Your task to perform on an android device: make emails show in primary in the gmail app Image 0: 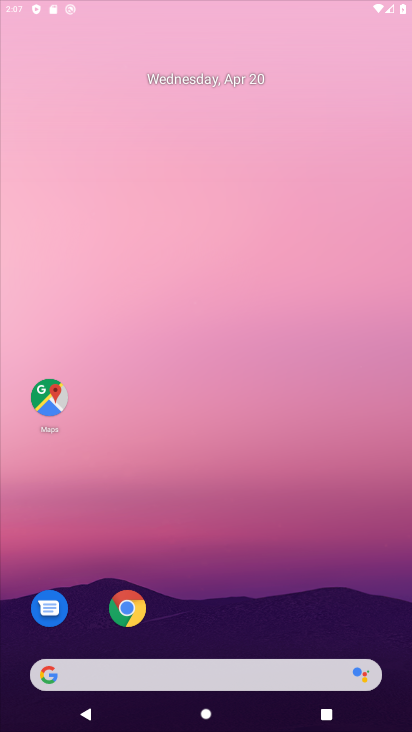
Step 0: drag from (300, 545) to (295, 230)
Your task to perform on an android device: make emails show in primary in the gmail app Image 1: 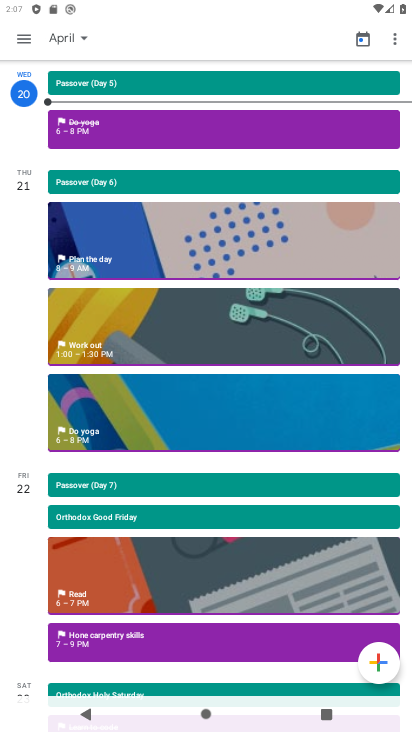
Step 1: press home button
Your task to perform on an android device: make emails show in primary in the gmail app Image 2: 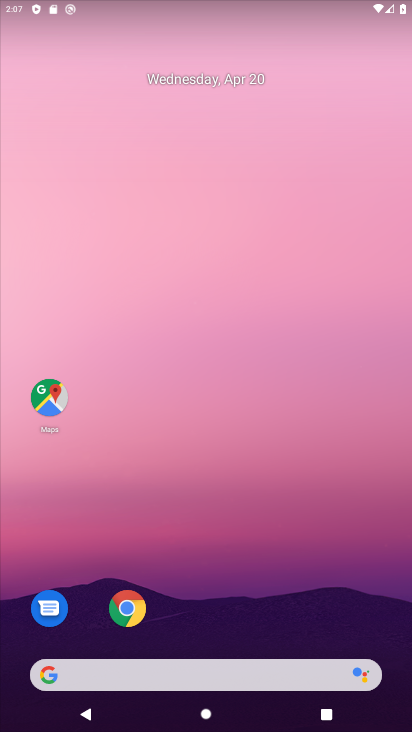
Step 2: drag from (341, 579) to (326, 152)
Your task to perform on an android device: make emails show in primary in the gmail app Image 3: 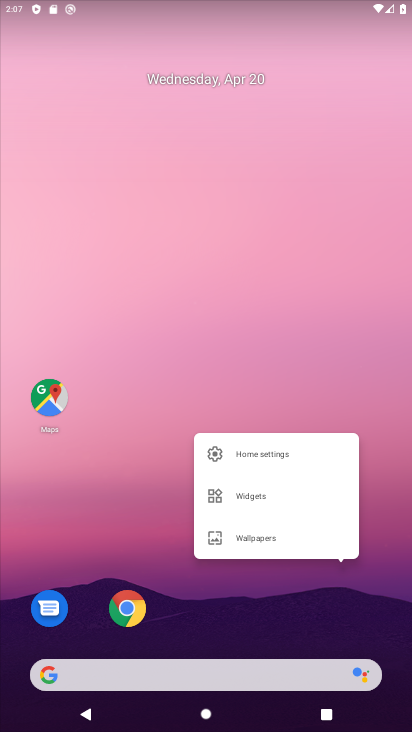
Step 3: drag from (371, 549) to (358, 183)
Your task to perform on an android device: make emails show in primary in the gmail app Image 4: 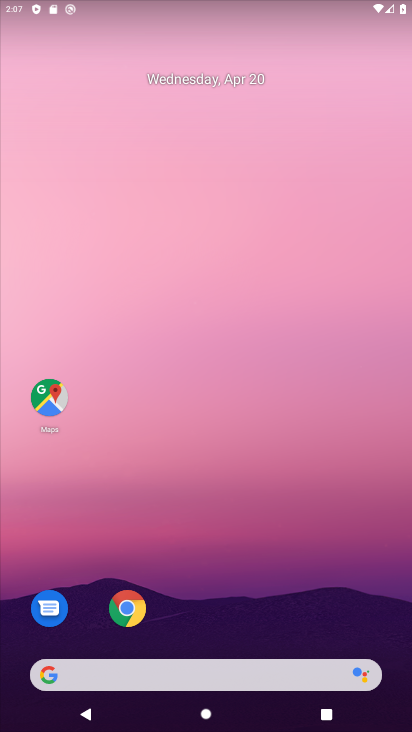
Step 4: drag from (330, 627) to (326, 111)
Your task to perform on an android device: make emails show in primary in the gmail app Image 5: 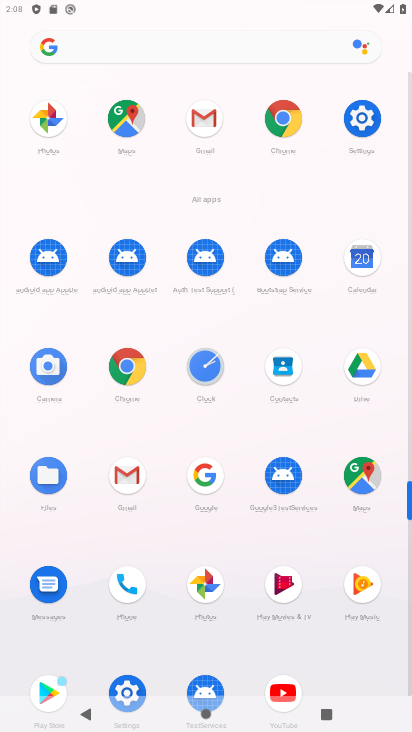
Step 5: click (127, 477)
Your task to perform on an android device: make emails show in primary in the gmail app Image 6: 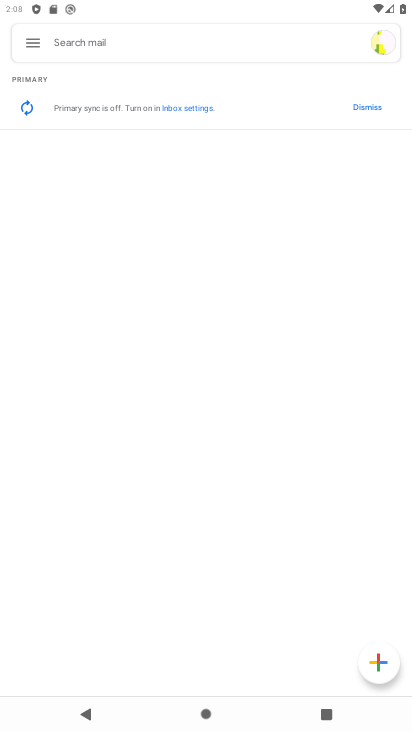
Step 6: click (31, 42)
Your task to perform on an android device: make emails show in primary in the gmail app Image 7: 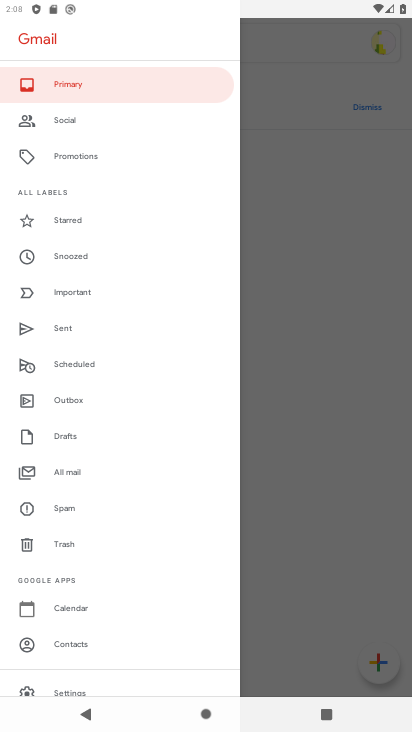
Step 7: drag from (168, 643) to (181, 284)
Your task to perform on an android device: make emails show in primary in the gmail app Image 8: 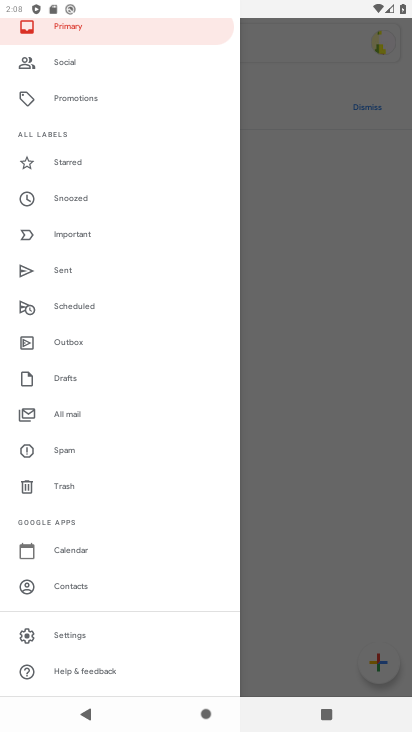
Step 8: click (75, 629)
Your task to perform on an android device: make emails show in primary in the gmail app Image 9: 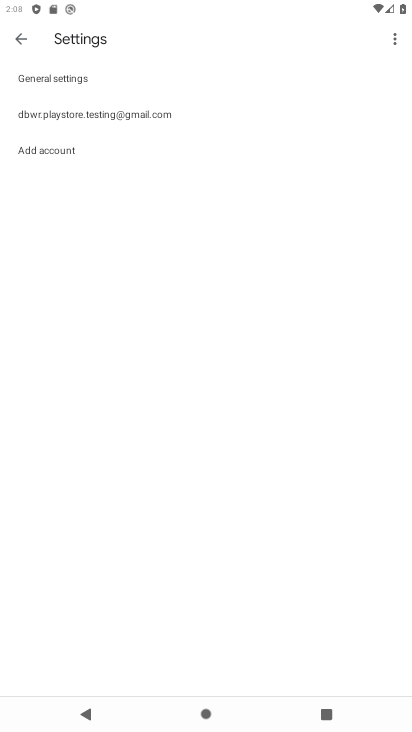
Step 9: click (111, 109)
Your task to perform on an android device: make emails show in primary in the gmail app Image 10: 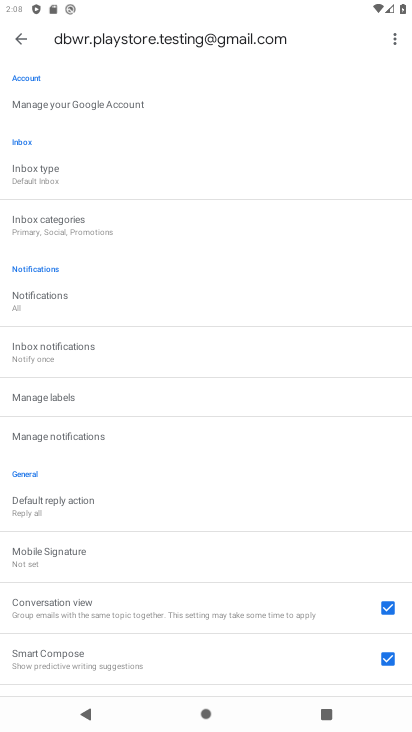
Step 10: click (80, 180)
Your task to perform on an android device: make emails show in primary in the gmail app Image 11: 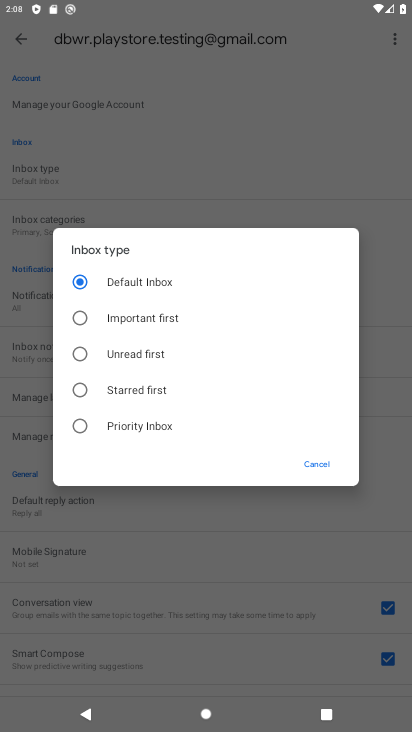
Step 11: click (308, 461)
Your task to perform on an android device: make emails show in primary in the gmail app Image 12: 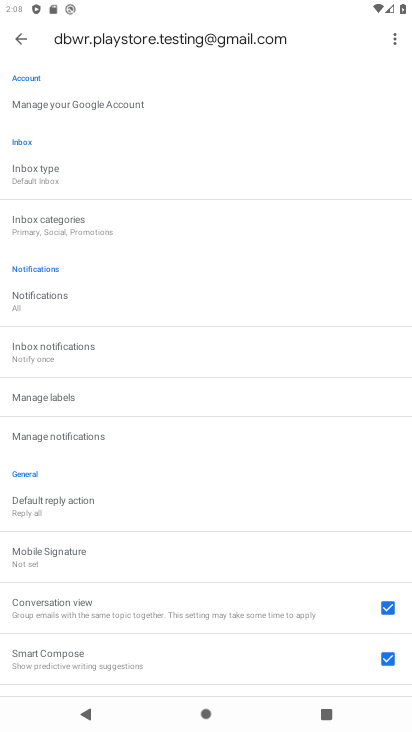
Step 12: task complete